Your task to perform on an android device: Go to battery settings Image 0: 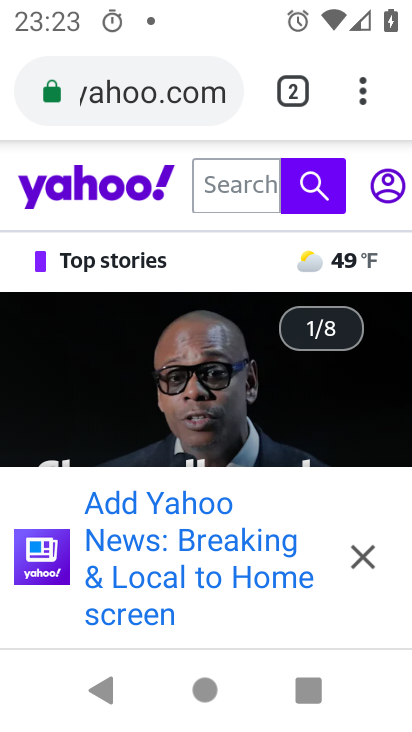
Step 0: press home button
Your task to perform on an android device: Go to battery settings Image 1: 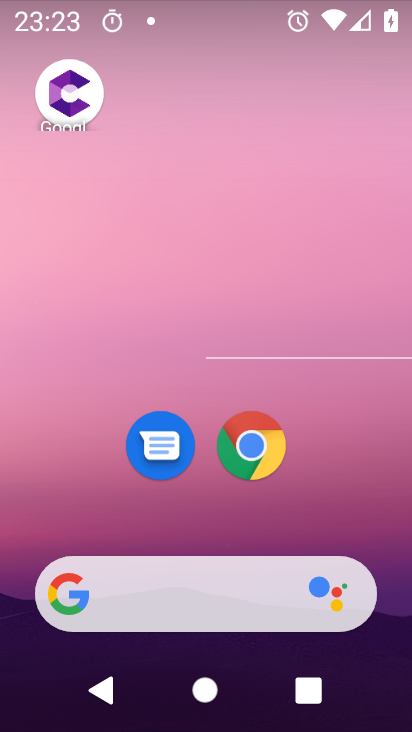
Step 1: drag from (174, 600) to (169, 20)
Your task to perform on an android device: Go to battery settings Image 2: 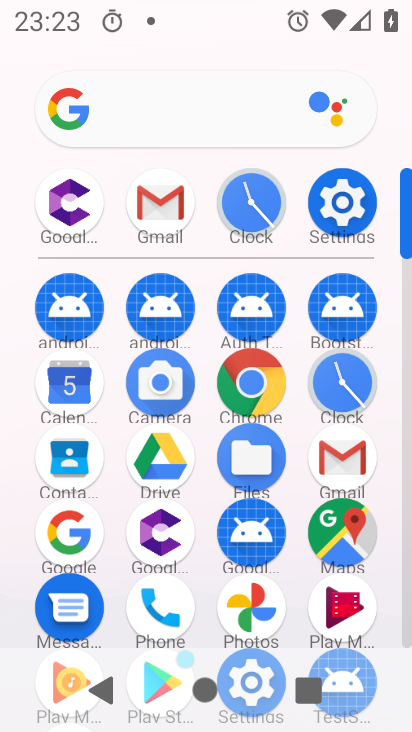
Step 2: click (332, 207)
Your task to perform on an android device: Go to battery settings Image 3: 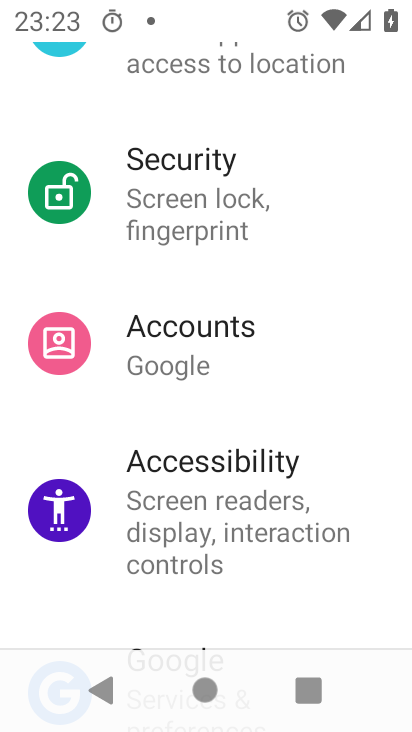
Step 3: drag from (228, 174) to (210, 674)
Your task to perform on an android device: Go to battery settings Image 4: 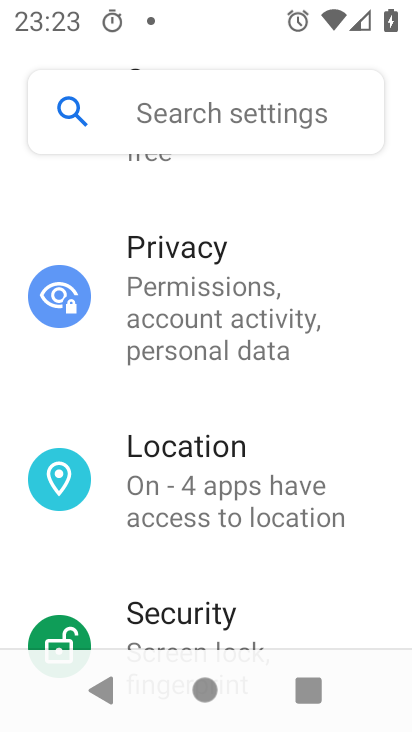
Step 4: drag from (164, 245) to (179, 645)
Your task to perform on an android device: Go to battery settings Image 5: 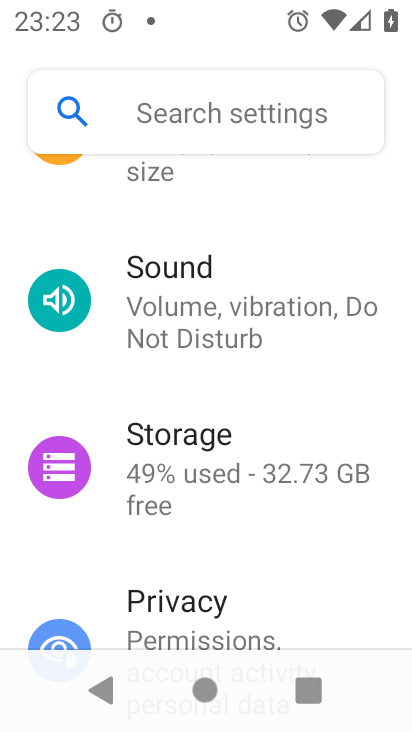
Step 5: drag from (170, 239) to (222, 726)
Your task to perform on an android device: Go to battery settings Image 6: 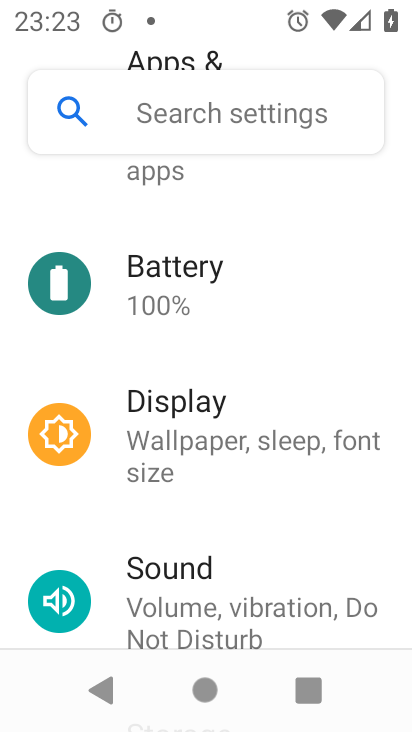
Step 6: click (204, 282)
Your task to perform on an android device: Go to battery settings Image 7: 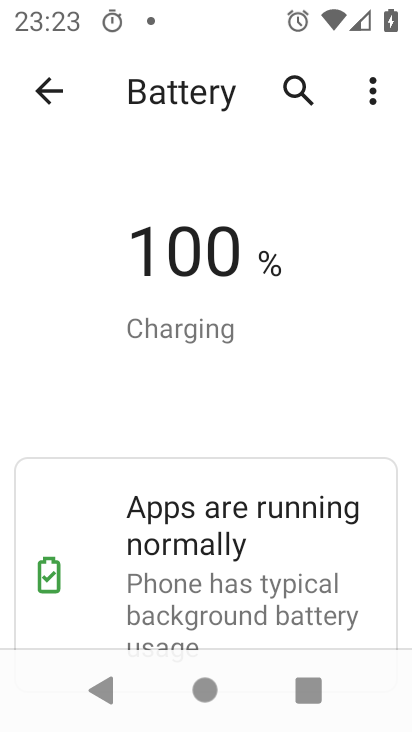
Step 7: click (204, 282)
Your task to perform on an android device: Go to battery settings Image 8: 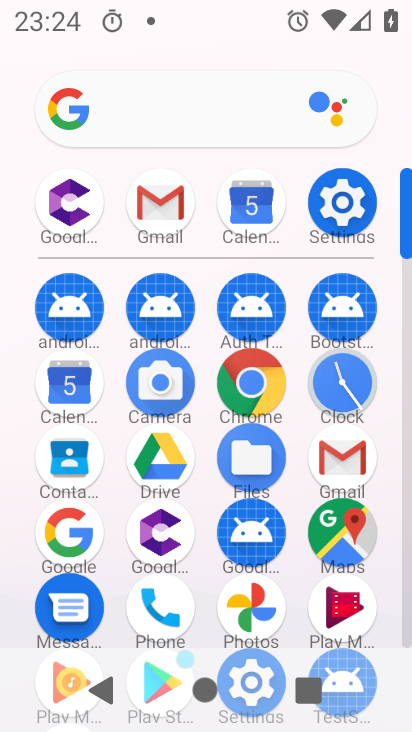
Step 8: click (334, 187)
Your task to perform on an android device: Go to battery settings Image 9: 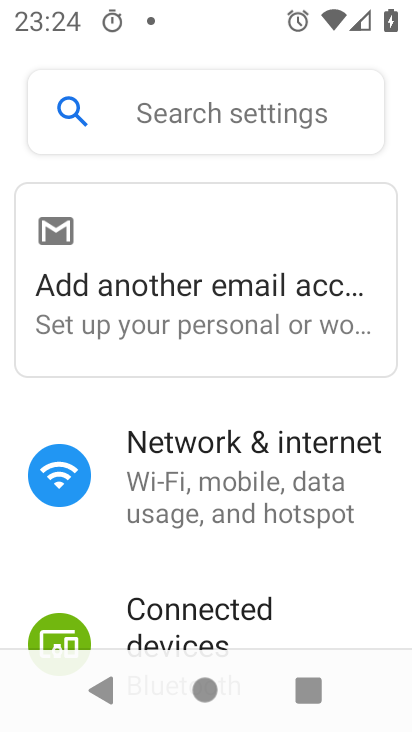
Step 9: drag from (262, 527) to (222, 158)
Your task to perform on an android device: Go to battery settings Image 10: 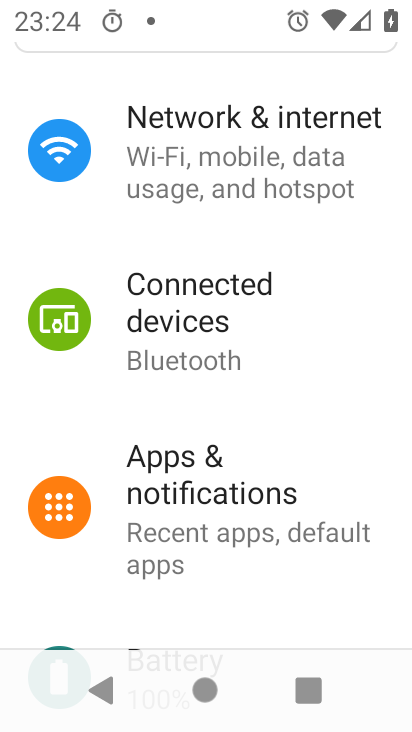
Step 10: drag from (157, 543) to (128, 40)
Your task to perform on an android device: Go to battery settings Image 11: 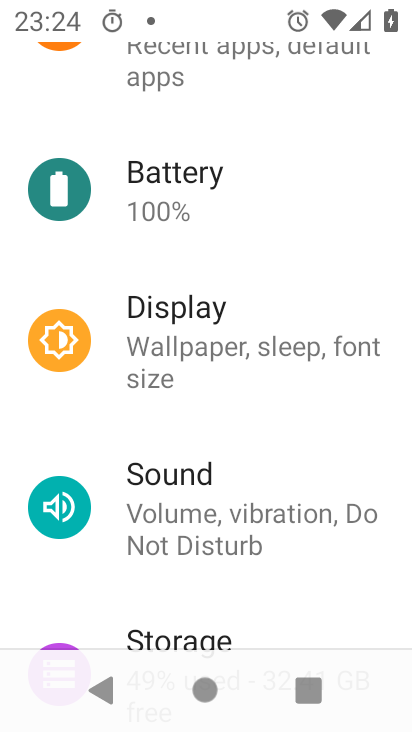
Step 11: click (170, 195)
Your task to perform on an android device: Go to battery settings Image 12: 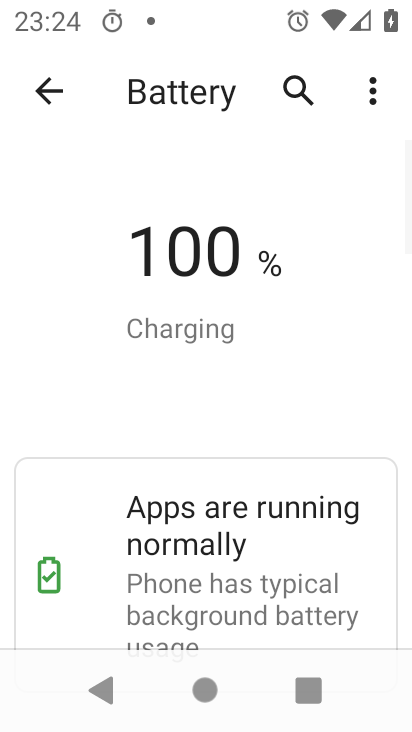
Step 12: task complete